Your task to perform on an android device: turn off javascript in the chrome app Image 0: 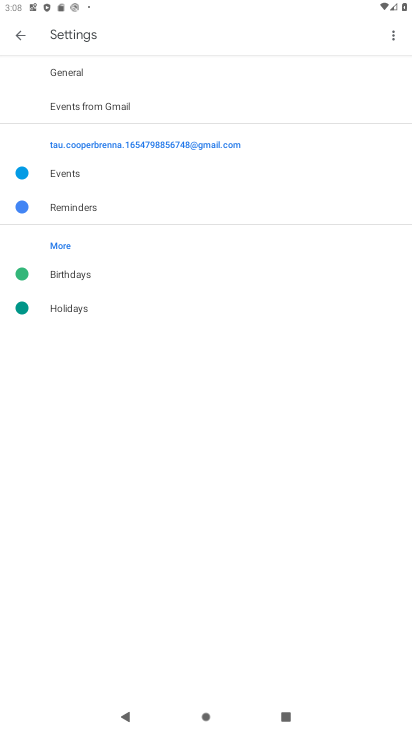
Step 0: press home button
Your task to perform on an android device: turn off javascript in the chrome app Image 1: 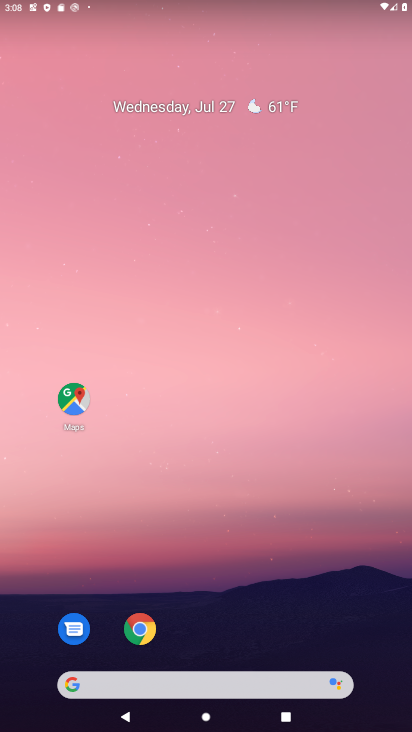
Step 1: click (139, 627)
Your task to perform on an android device: turn off javascript in the chrome app Image 2: 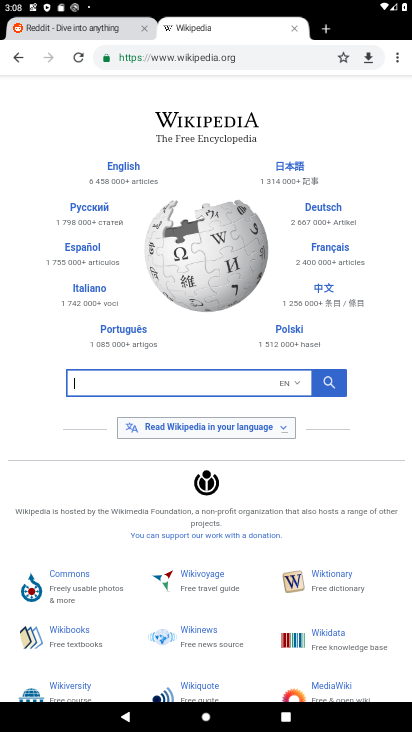
Step 2: click (396, 56)
Your task to perform on an android device: turn off javascript in the chrome app Image 3: 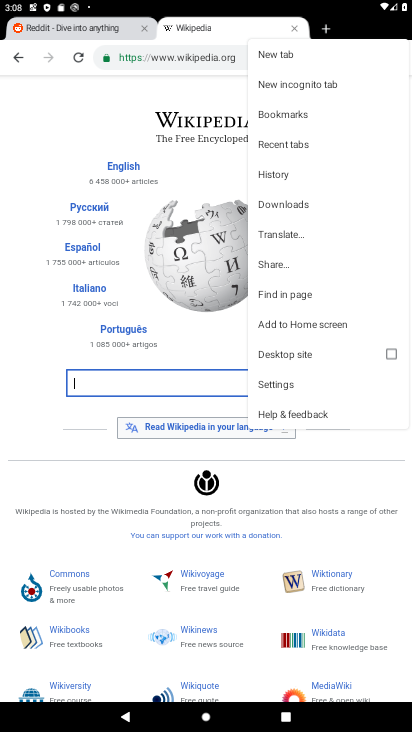
Step 3: click (283, 385)
Your task to perform on an android device: turn off javascript in the chrome app Image 4: 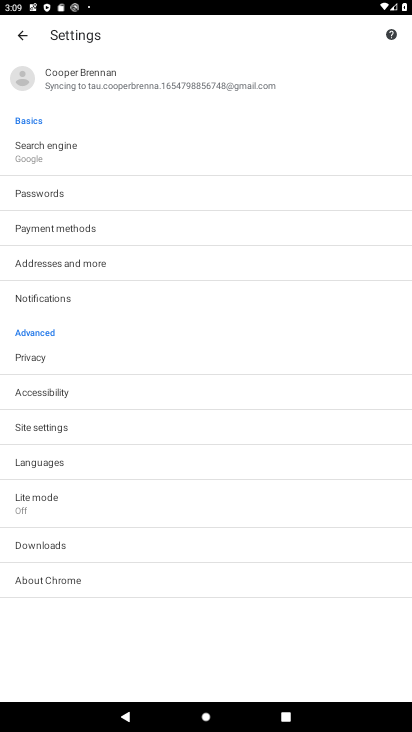
Step 4: click (56, 423)
Your task to perform on an android device: turn off javascript in the chrome app Image 5: 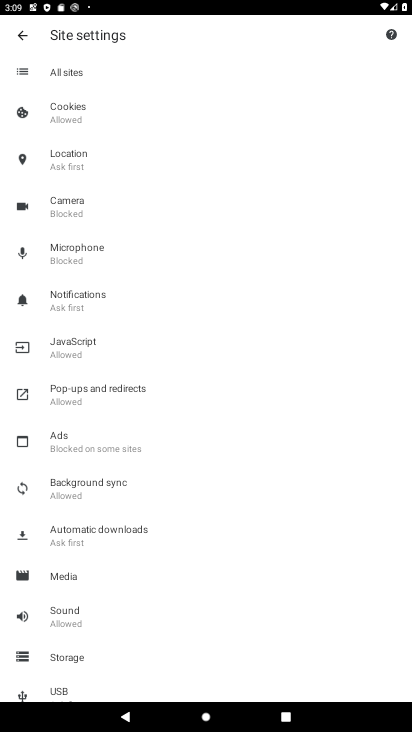
Step 5: click (79, 344)
Your task to perform on an android device: turn off javascript in the chrome app Image 6: 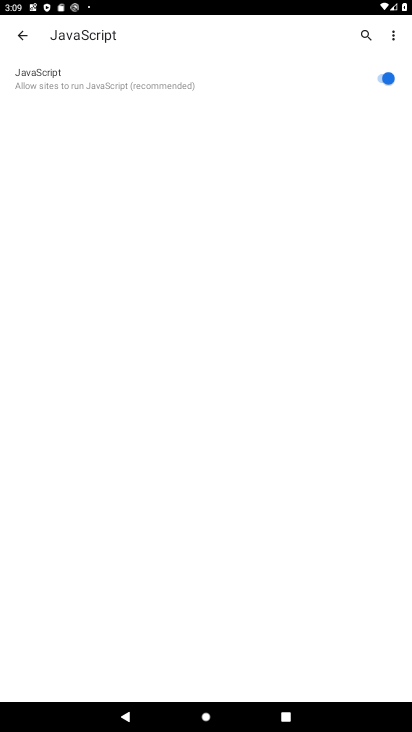
Step 6: click (383, 76)
Your task to perform on an android device: turn off javascript in the chrome app Image 7: 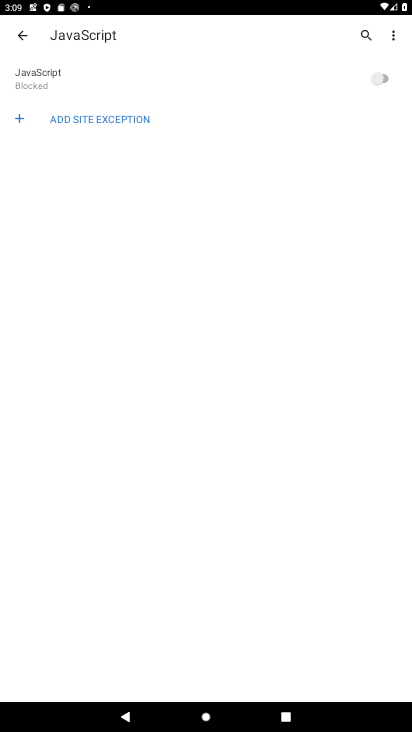
Step 7: task complete